Your task to perform on an android device: open a new tab in the chrome app Image 0: 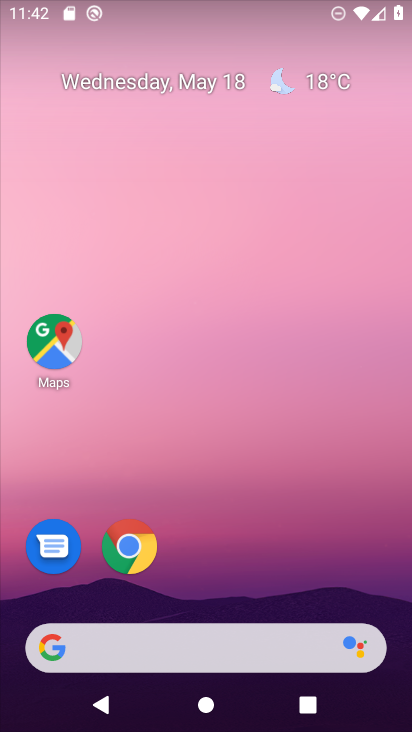
Step 0: click (130, 551)
Your task to perform on an android device: open a new tab in the chrome app Image 1: 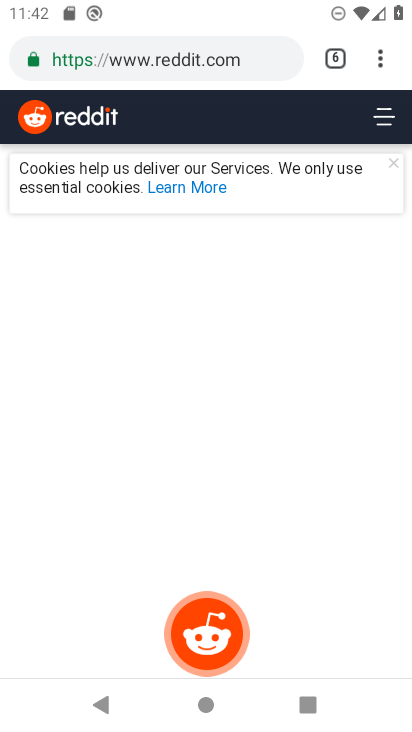
Step 1: click (379, 62)
Your task to perform on an android device: open a new tab in the chrome app Image 2: 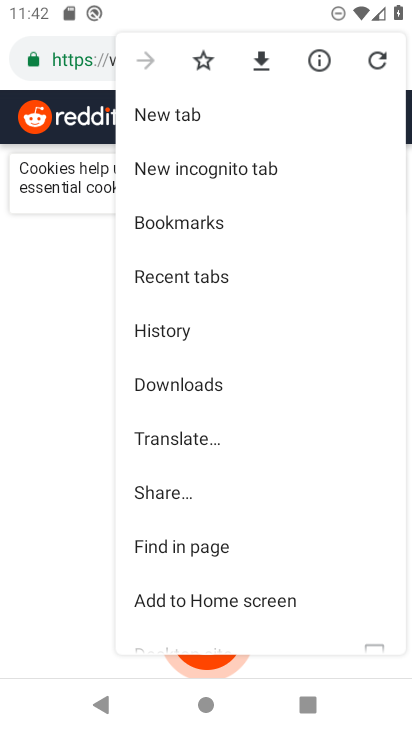
Step 2: click (207, 116)
Your task to perform on an android device: open a new tab in the chrome app Image 3: 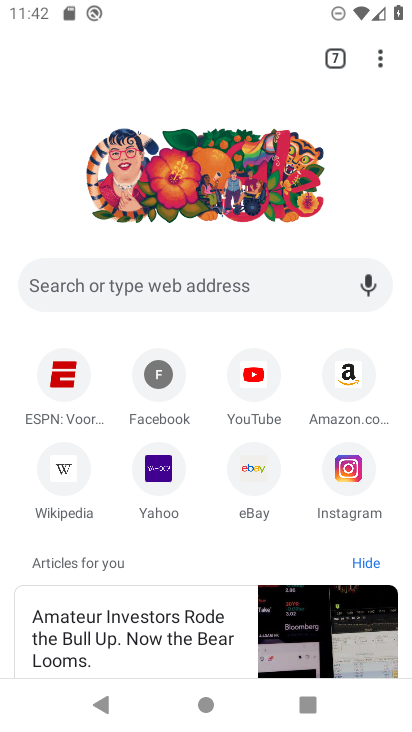
Step 3: task complete